Your task to perform on an android device: toggle notification dots Image 0: 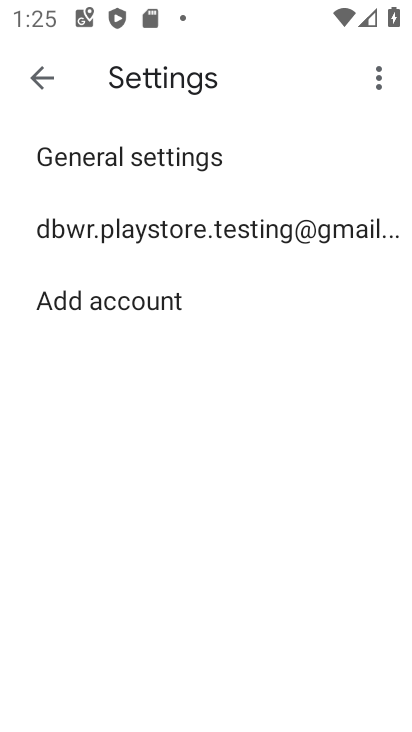
Step 0: press home button
Your task to perform on an android device: toggle notification dots Image 1: 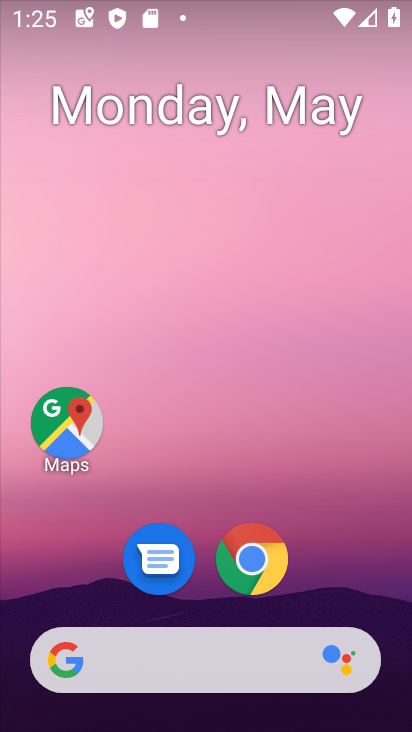
Step 1: drag from (211, 722) to (233, 149)
Your task to perform on an android device: toggle notification dots Image 2: 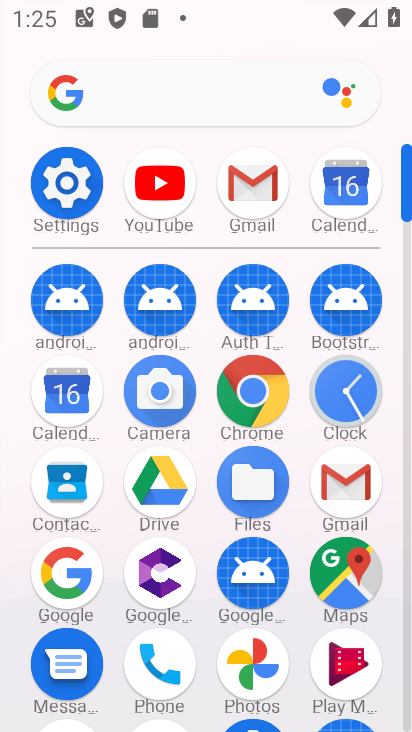
Step 2: click (60, 191)
Your task to perform on an android device: toggle notification dots Image 3: 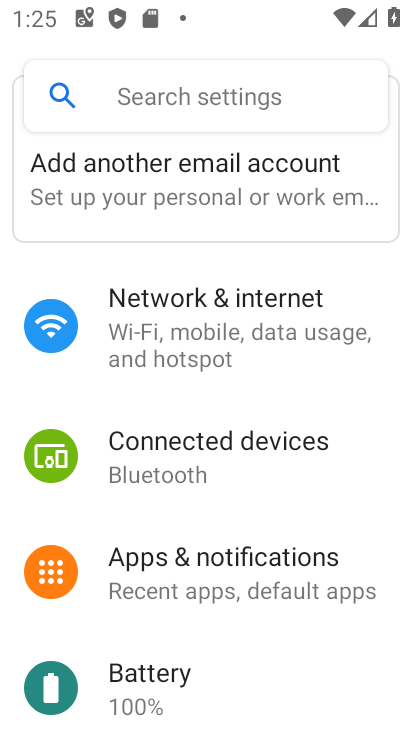
Step 3: click (275, 588)
Your task to perform on an android device: toggle notification dots Image 4: 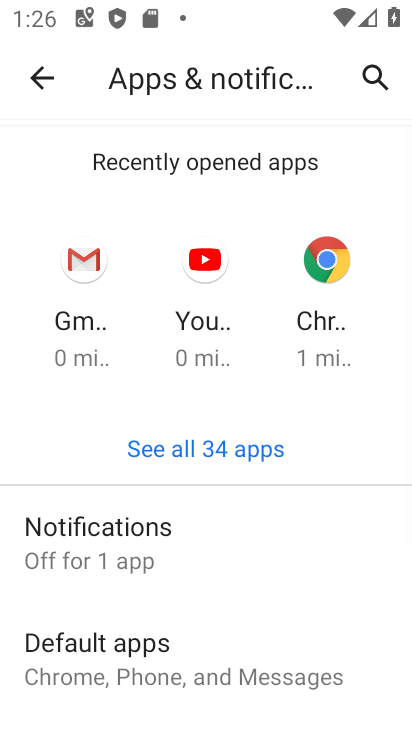
Step 4: click (186, 533)
Your task to perform on an android device: toggle notification dots Image 5: 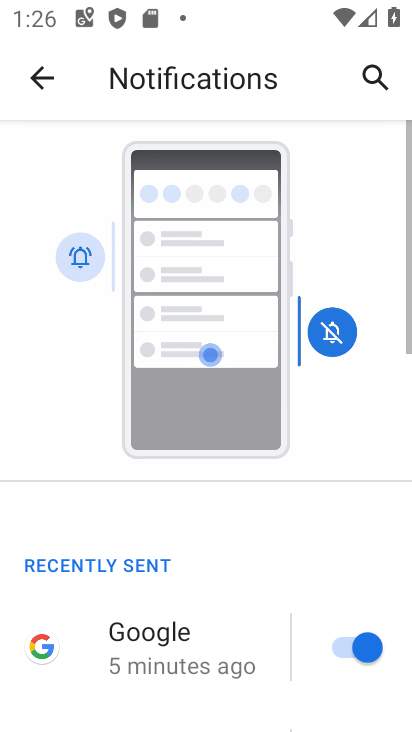
Step 5: drag from (260, 704) to (237, 205)
Your task to perform on an android device: toggle notification dots Image 6: 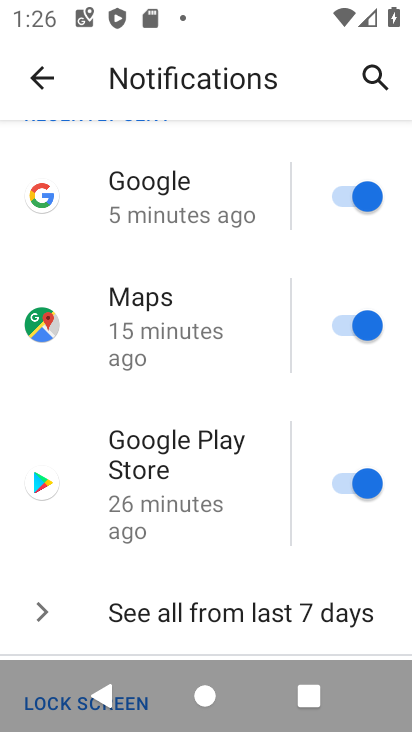
Step 6: drag from (245, 628) to (228, 72)
Your task to perform on an android device: toggle notification dots Image 7: 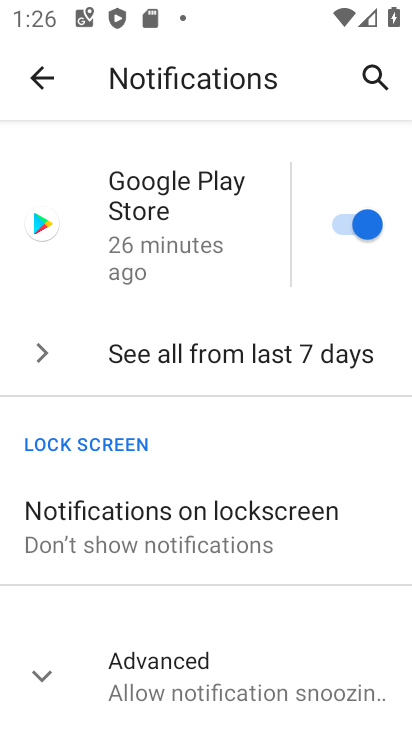
Step 7: click (198, 667)
Your task to perform on an android device: toggle notification dots Image 8: 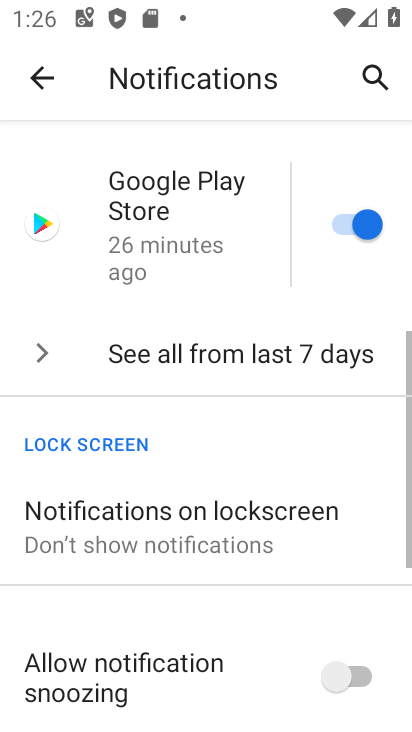
Step 8: drag from (305, 697) to (260, 237)
Your task to perform on an android device: toggle notification dots Image 9: 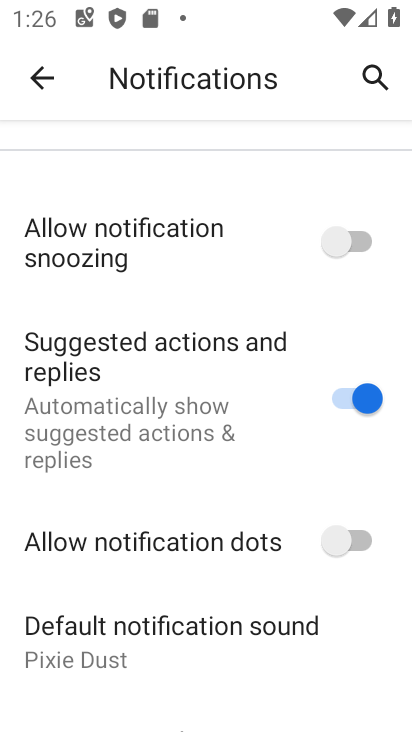
Step 9: click (364, 552)
Your task to perform on an android device: toggle notification dots Image 10: 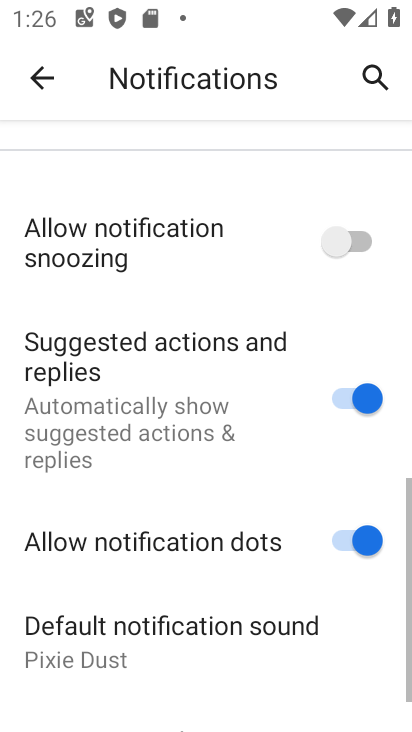
Step 10: task complete